Your task to perform on an android device: Open Youtube and go to the subscriptions tab Image 0: 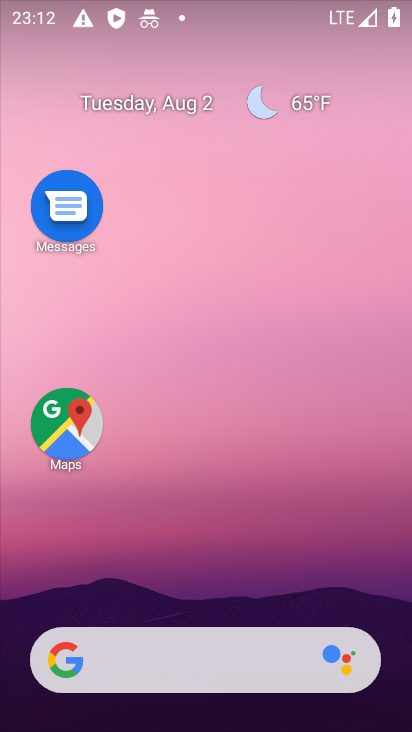
Step 0: click (114, 234)
Your task to perform on an android device: Open Youtube and go to the subscriptions tab Image 1: 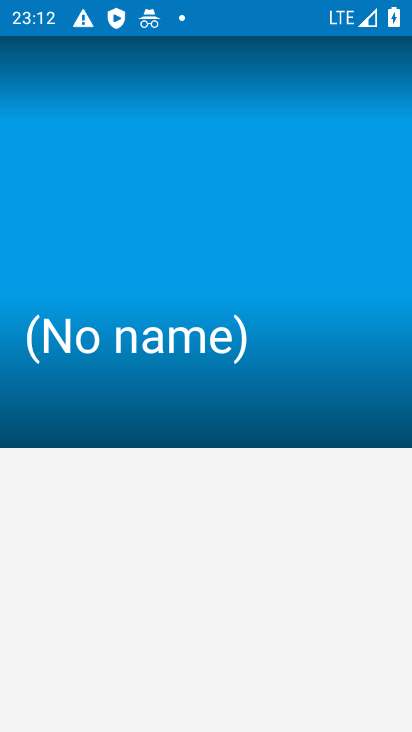
Step 1: drag from (190, 699) to (190, 414)
Your task to perform on an android device: Open Youtube and go to the subscriptions tab Image 2: 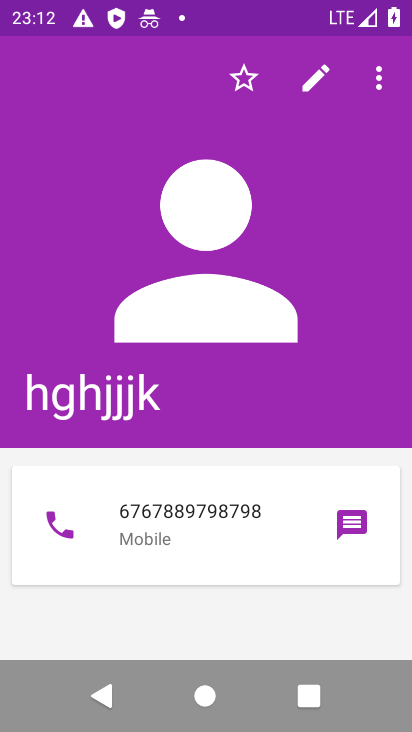
Step 2: press back button
Your task to perform on an android device: Open Youtube and go to the subscriptions tab Image 3: 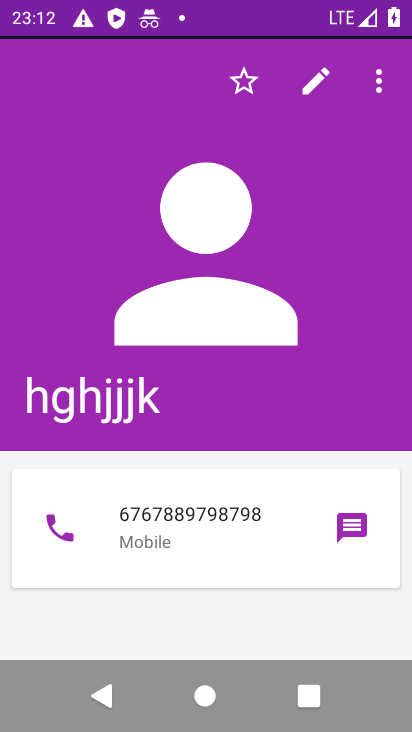
Step 3: press back button
Your task to perform on an android device: Open Youtube and go to the subscriptions tab Image 4: 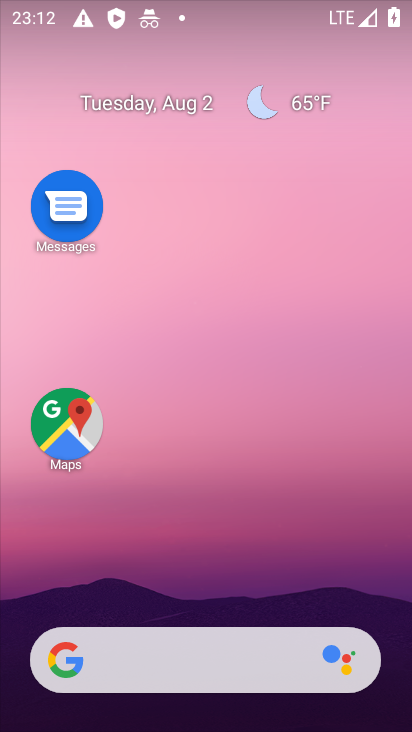
Step 4: press back button
Your task to perform on an android device: Open Youtube and go to the subscriptions tab Image 5: 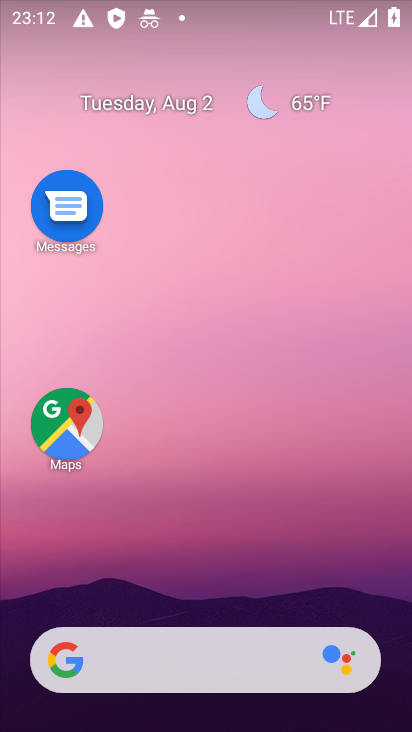
Step 5: press home button
Your task to perform on an android device: Open Youtube and go to the subscriptions tab Image 6: 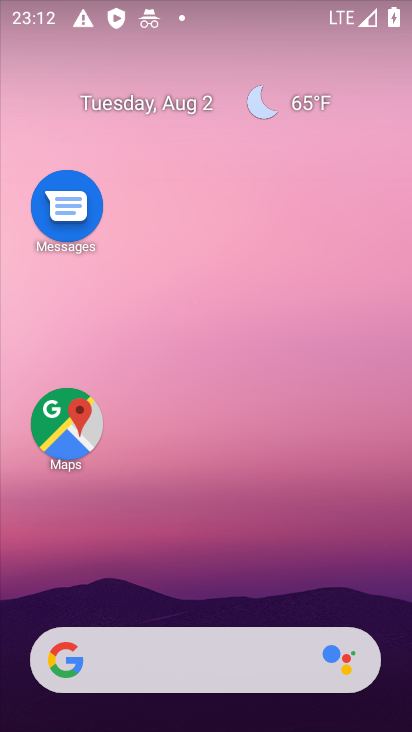
Step 6: drag from (242, 438) to (212, 76)
Your task to perform on an android device: Open Youtube and go to the subscriptions tab Image 7: 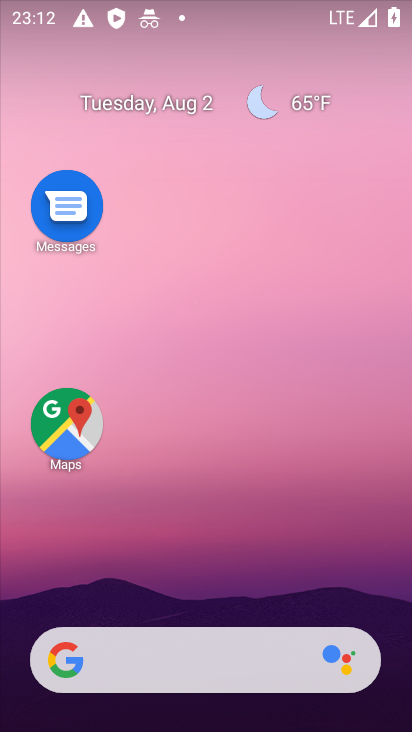
Step 7: drag from (269, 476) to (225, 17)
Your task to perform on an android device: Open Youtube and go to the subscriptions tab Image 8: 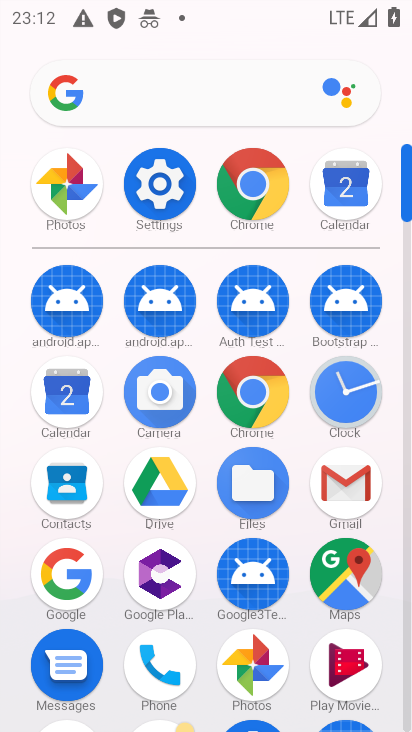
Step 8: drag from (304, 565) to (293, 142)
Your task to perform on an android device: Open Youtube and go to the subscriptions tab Image 9: 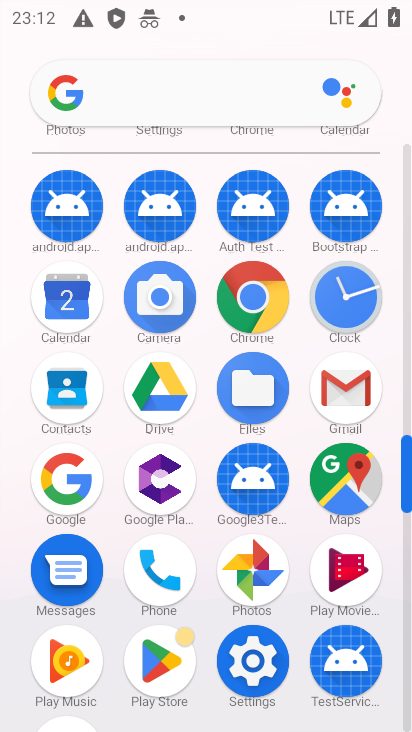
Step 9: drag from (332, 521) to (309, 209)
Your task to perform on an android device: Open Youtube and go to the subscriptions tab Image 10: 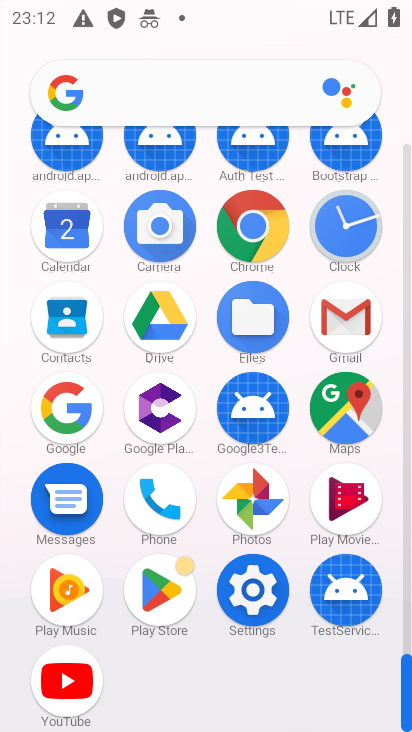
Step 10: click (53, 673)
Your task to perform on an android device: Open Youtube and go to the subscriptions tab Image 11: 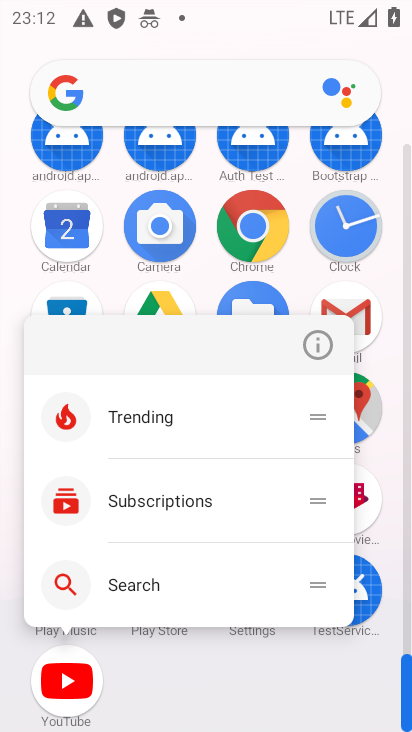
Step 11: click (191, 496)
Your task to perform on an android device: Open Youtube and go to the subscriptions tab Image 12: 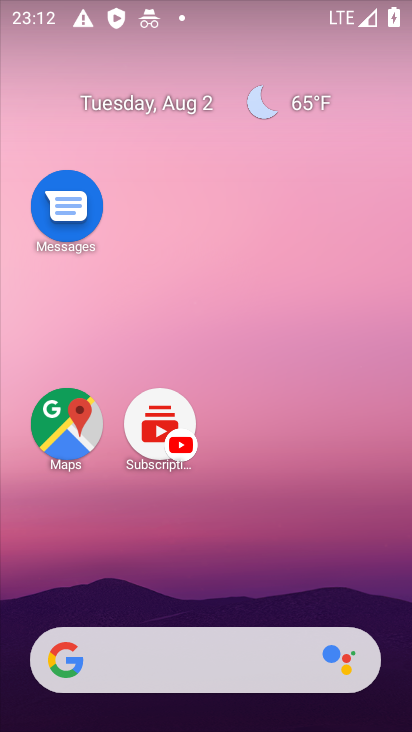
Step 12: task complete